Your task to perform on an android device: What is the recent news? Image 0: 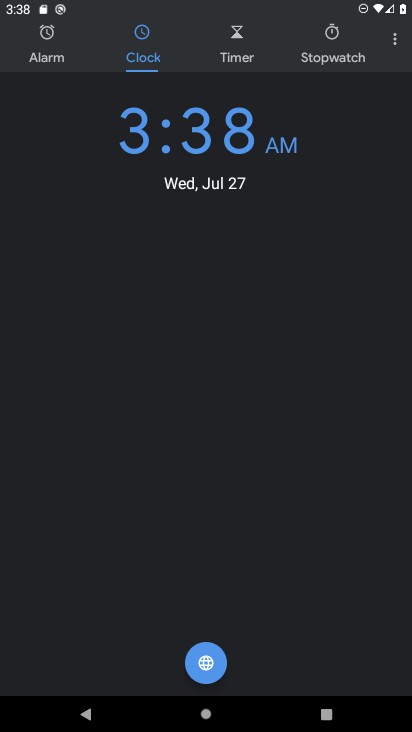
Step 0: press home button
Your task to perform on an android device: What is the recent news? Image 1: 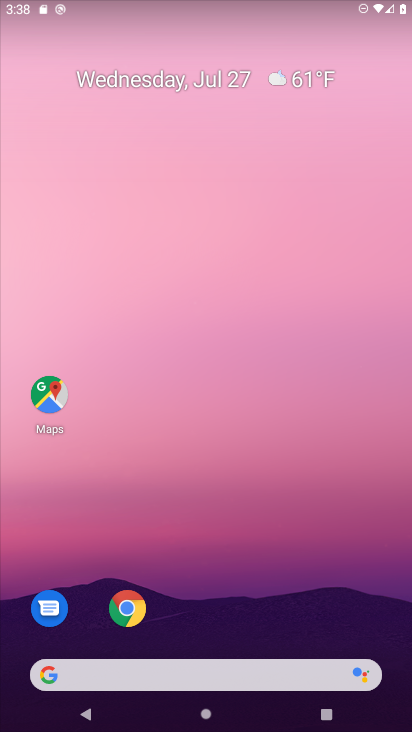
Step 1: task complete